Your task to perform on an android device: Open the clock Image 0: 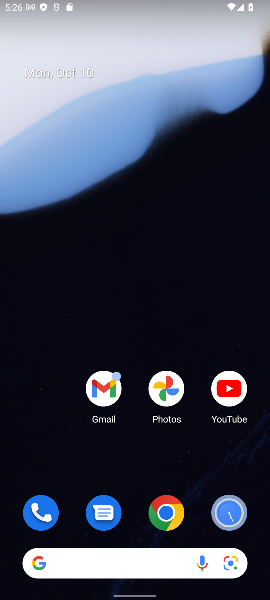
Step 0: click (237, 507)
Your task to perform on an android device: Open the clock Image 1: 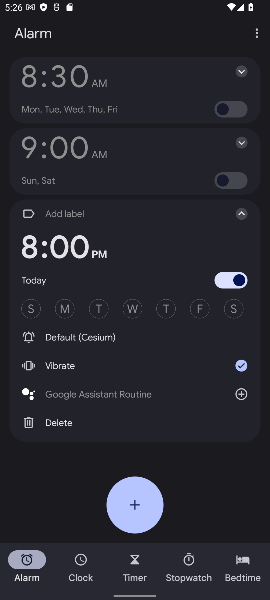
Step 1: click (94, 568)
Your task to perform on an android device: Open the clock Image 2: 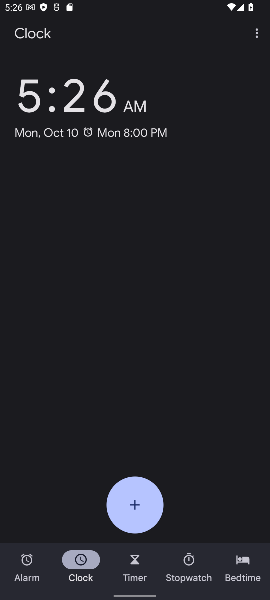
Step 2: task complete